Your task to perform on an android device: Clear all items from cart on costco. Add duracell triple a to the cart on costco Image 0: 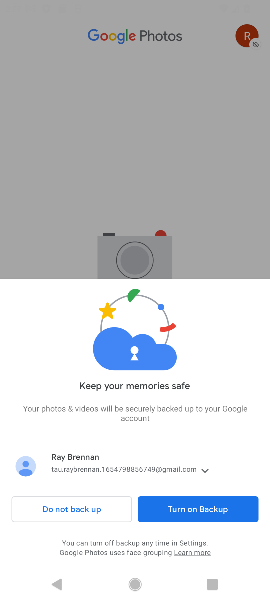
Step 0: press home button
Your task to perform on an android device: Clear all items from cart on costco. Add duracell triple a to the cart on costco Image 1: 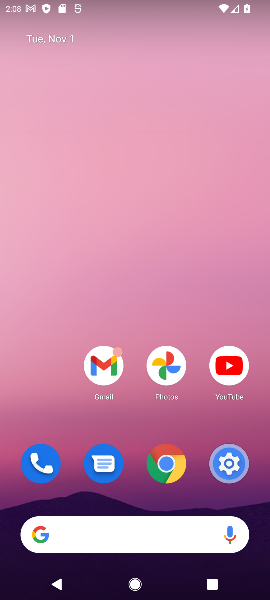
Step 1: drag from (134, 484) to (134, 35)
Your task to perform on an android device: Clear all items from cart on costco. Add duracell triple a to the cart on costco Image 2: 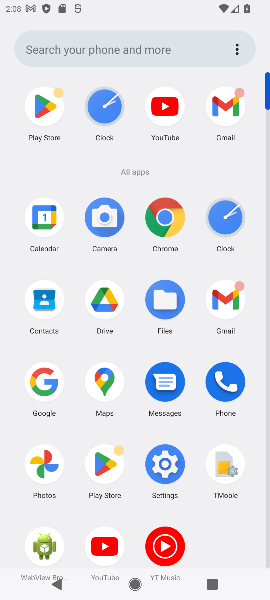
Step 2: click (166, 220)
Your task to perform on an android device: Clear all items from cart on costco. Add duracell triple a to the cart on costco Image 3: 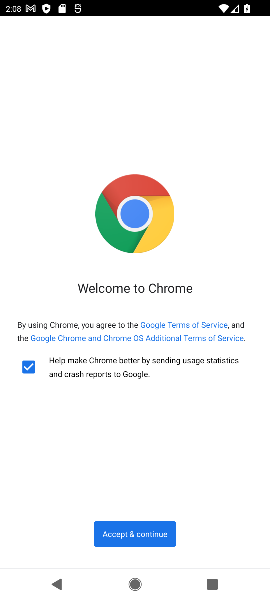
Step 3: click (128, 535)
Your task to perform on an android device: Clear all items from cart on costco. Add duracell triple a to the cart on costco Image 4: 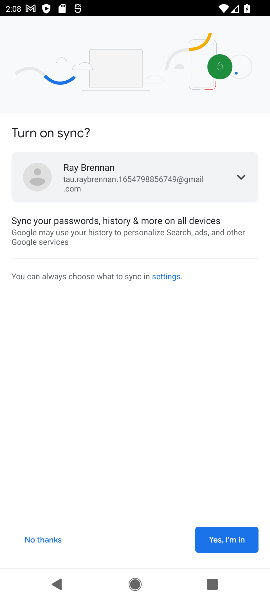
Step 4: click (228, 543)
Your task to perform on an android device: Clear all items from cart on costco. Add duracell triple a to the cart on costco Image 5: 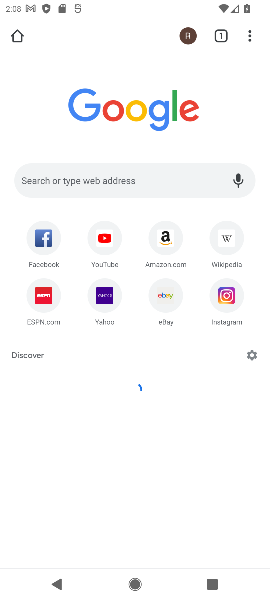
Step 5: click (174, 190)
Your task to perform on an android device: Clear all items from cart on costco. Add duracell triple a to the cart on costco Image 6: 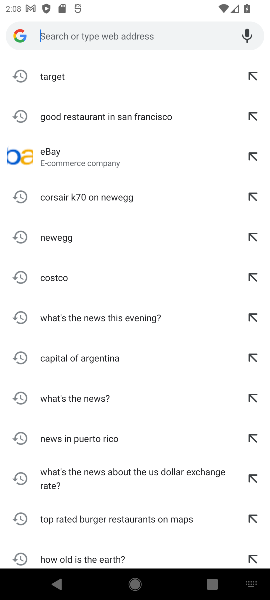
Step 6: type "costco.com"
Your task to perform on an android device: Clear all items from cart on costco. Add duracell triple a to the cart on costco Image 7: 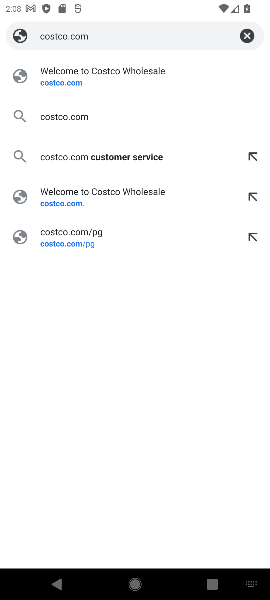
Step 7: press enter
Your task to perform on an android device: Clear all items from cart on costco. Add duracell triple a to the cart on costco Image 8: 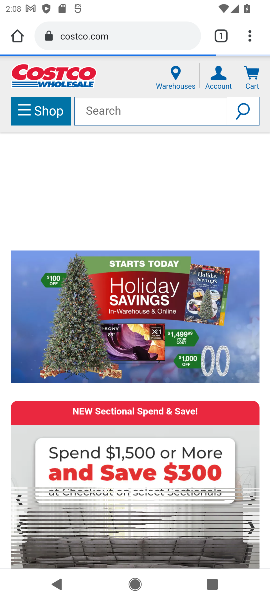
Step 8: click (250, 73)
Your task to perform on an android device: Clear all items from cart on costco. Add duracell triple a to the cart on costco Image 9: 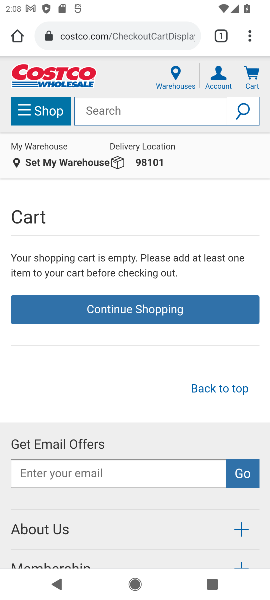
Step 9: click (179, 113)
Your task to perform on an android device: Clear all items from cart on costco. Add duracell triple a to the cart on costco Image 10: 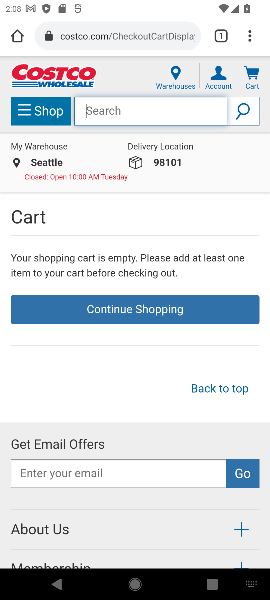
Step 10: type "duracell triple a"
Your task to perform on an android device: Clear all items from cart on costco. Add duracell triple a to the cart on costco Image 11: 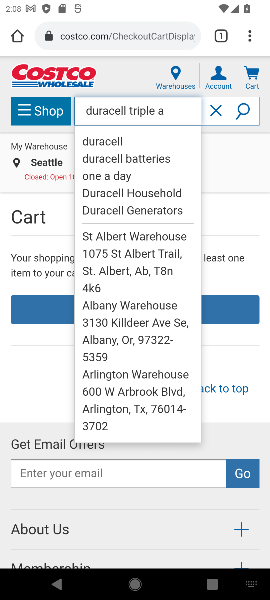
Step 11: press enter
Your task to perform on an android device: Clear all items from cart on costco. Add duracell triple a to the cart on costco Image 12: 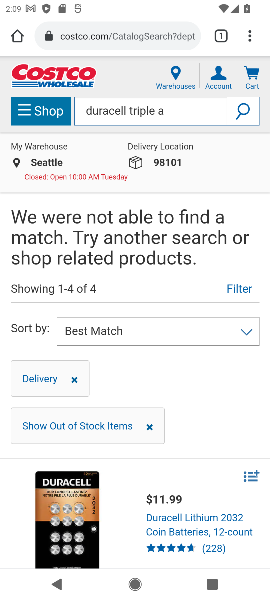
Step 12: task complete